Your task to perform on an android device: move a message to another label in the gmail app Image 0: 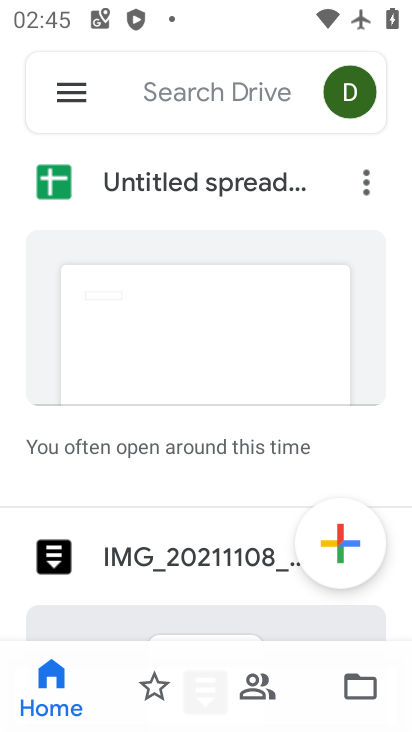
Step 0: press home button
Your task to perform on an android device: move a message to another label in the gmail app Image 1: 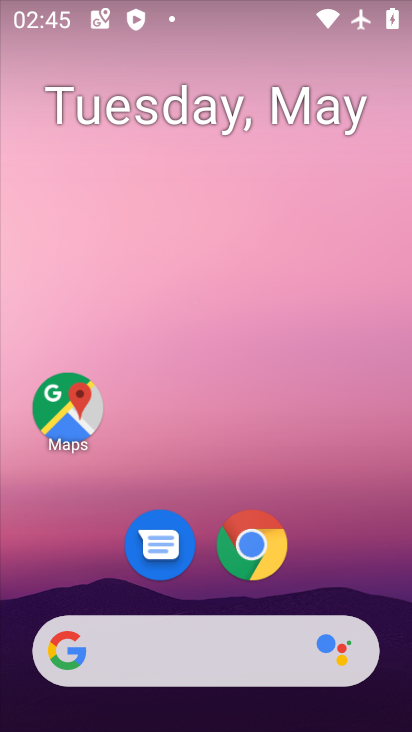
Step 1: drag from (395, 635) to (325, 124)
Your task to perform on an android device: move a message to another label in the gmail app Image 2: 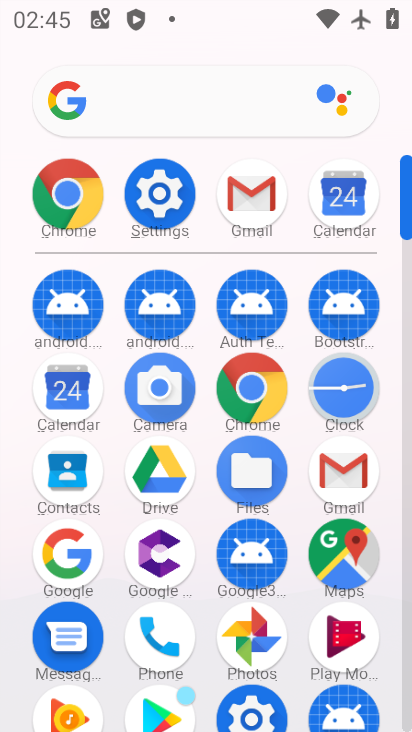
Step 2: click (343, 467)
Your task to perform on an android device: move a message to another label in the gmail app Image 3: 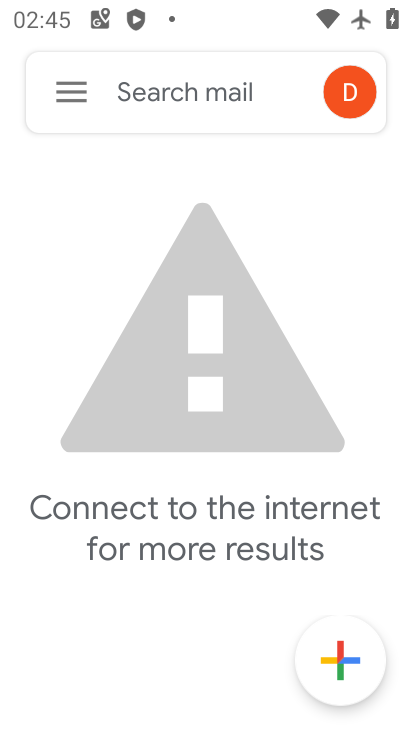
Step 3: click (74, 94)
Your task to perform on an android device: move a message to another label in the gmail app Image 4: 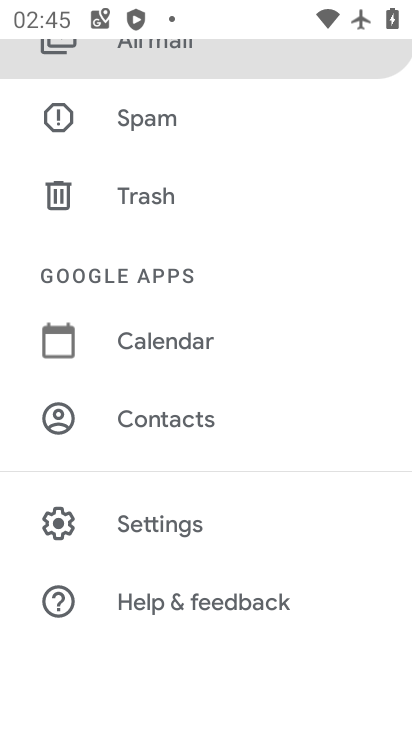
Step 4: drag from (182, 135) to (232, 444)
Your task to perform on an android device: move a message to another label in the gmail app Image 5: 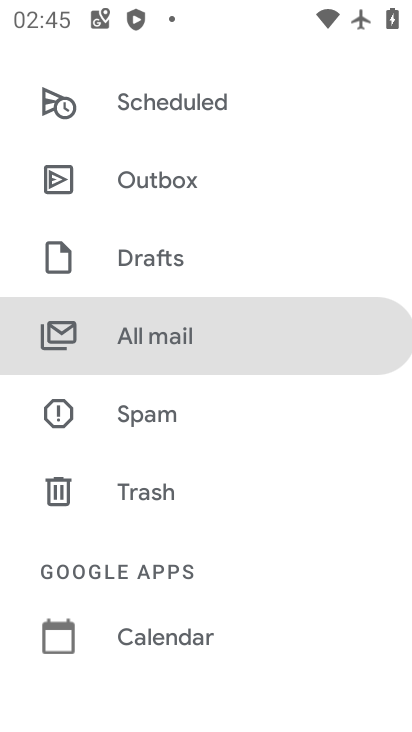
Step 5: click (299, 344)
Your task to perform on an android device: move a message to another label in the gmail app Image 6: 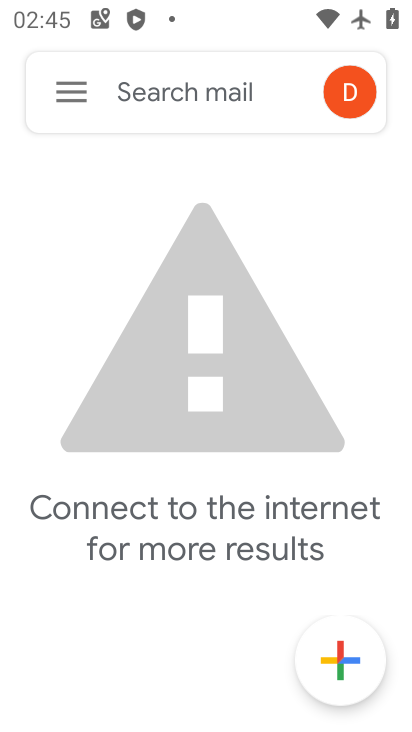
Step 6: task complete